Your task to perform on an android device: turn on location history Image 0: 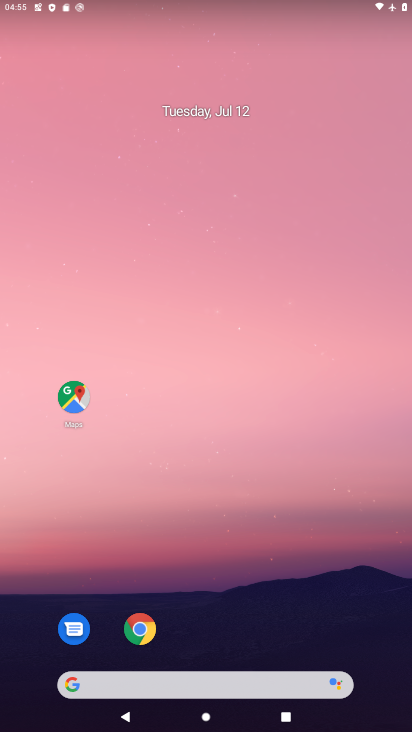
Step 0: drag from (220, 568) to (222, 218)
Your task to perform on an android device: turn on location history Image 1: 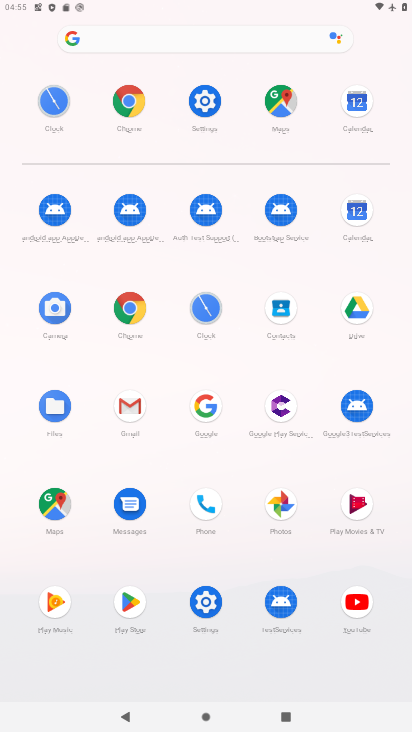
Step 1: click (212, 97)
Your task to perform on an android device: turn on location history Image 2: 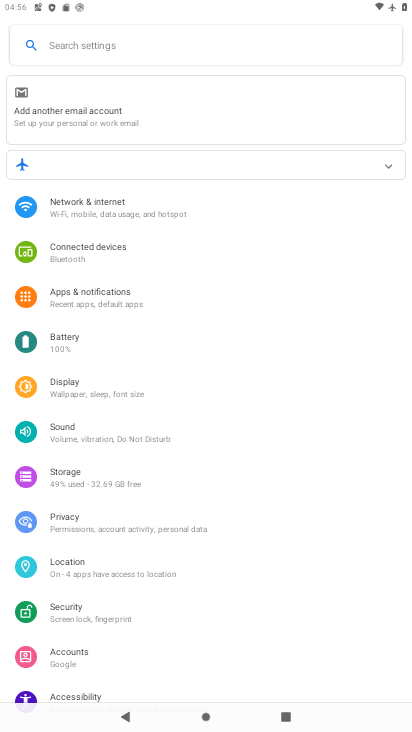
Step 2: click (79, 563)
Your task to perform on an android device: turn on location history Image 3: 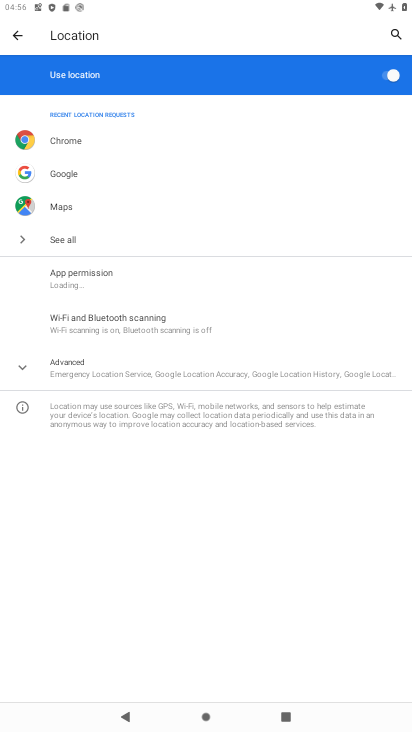
Step 3: click (98, 363)
Your task to perform on an android device: turn on location history Image 4: 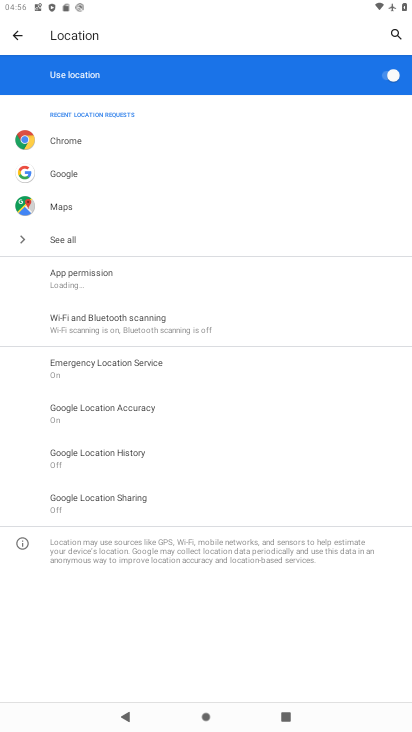
Step 4: click (121, 453)
Your task to perform on an android device: turn on location history Image 5: 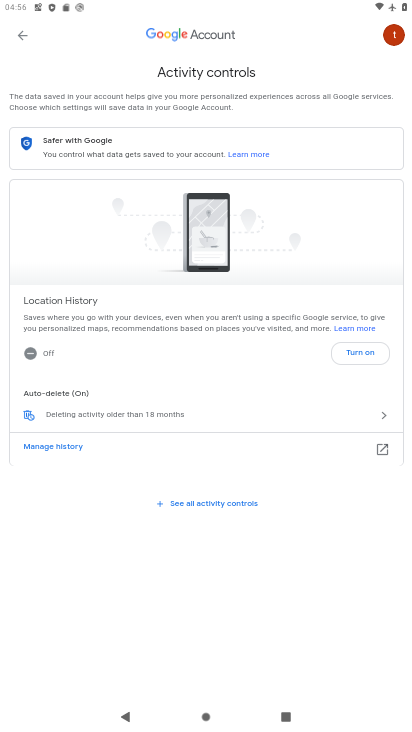
Step 5: click (351, 358)
Your task to perform on an android device: turn on location history Image 6: 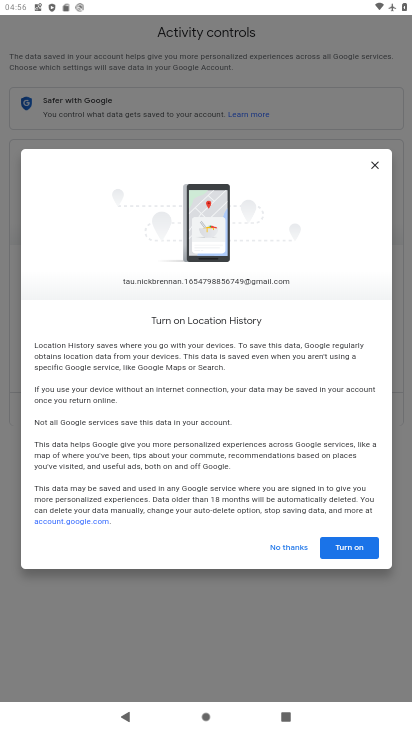
Step 6: click (361, 544)
Your task to perform on an android device: turn on location history Image 7: 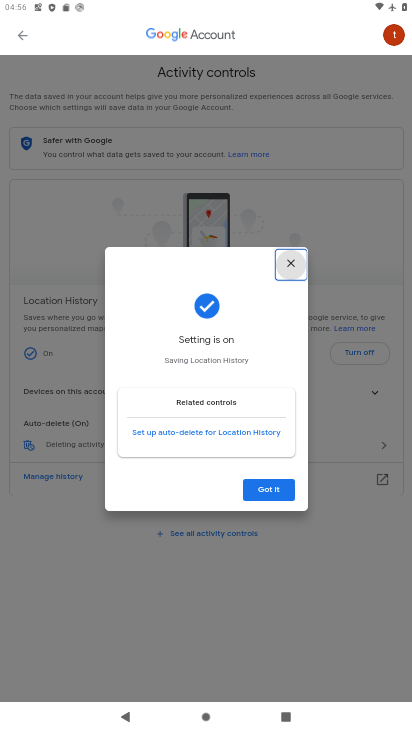
Step 7: task complete